Your task to perform on an android device: toggle airplane mode Image 0: 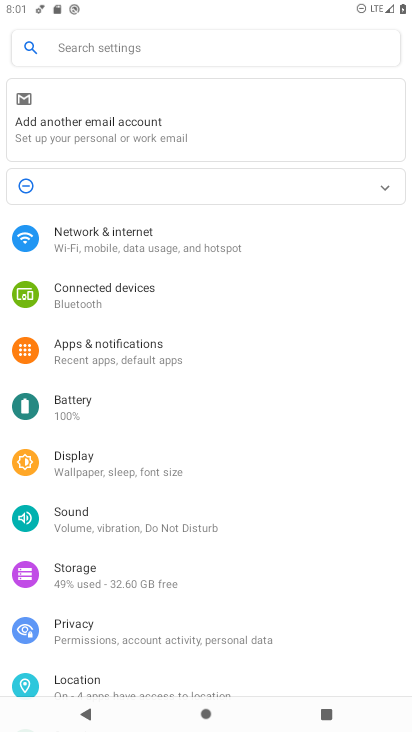
Step 0: click (132, 247)
Your task to perform on an android device: toggle airplane mode Image 1: 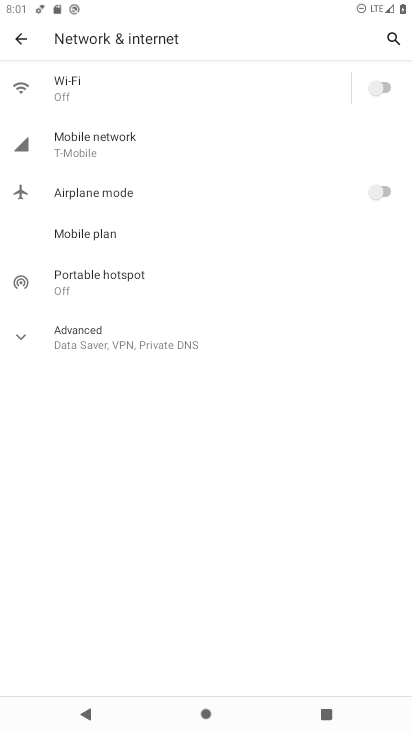
Step 1: click (377, 192)
Your task to perform on an android device: toggle airplane mode Image 2: 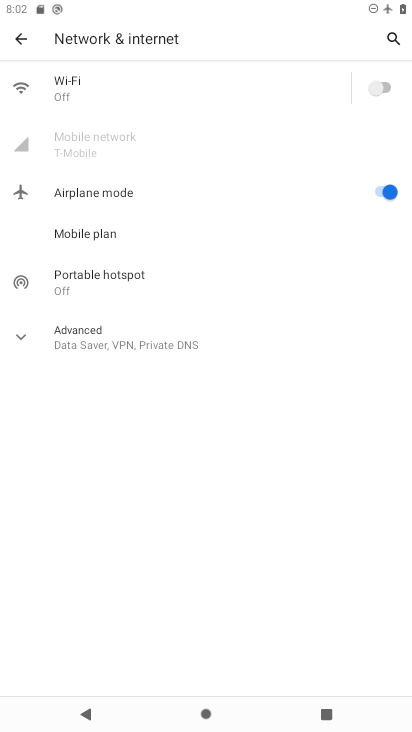
Step 2: task complete